Your task to perform on an android device: change the clock display to show seconds Image 0: 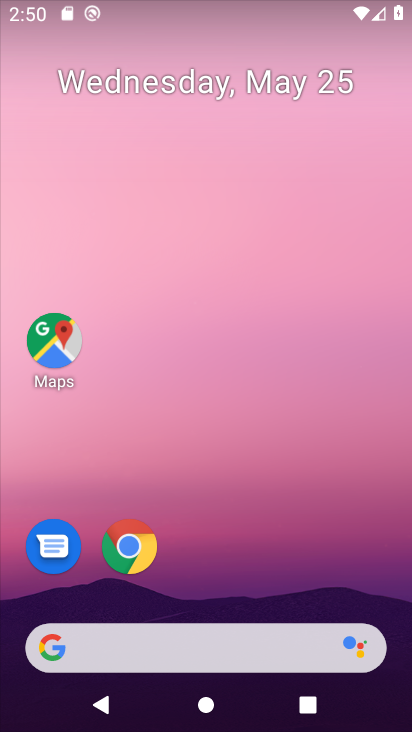
Step 0: drag from (211, 571) to (162, 180)
Your task to perform on an android device: change the clock display to show seconds Image 1: 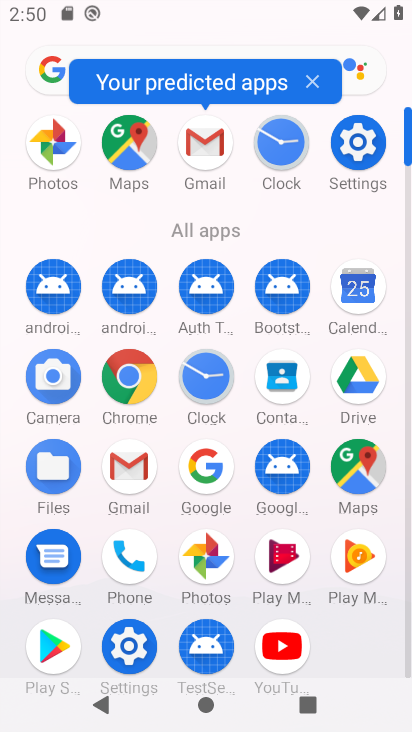
Step 1: click (289, 151)
Your task to perform on an android device: change the clock display to show seconds Image 2: 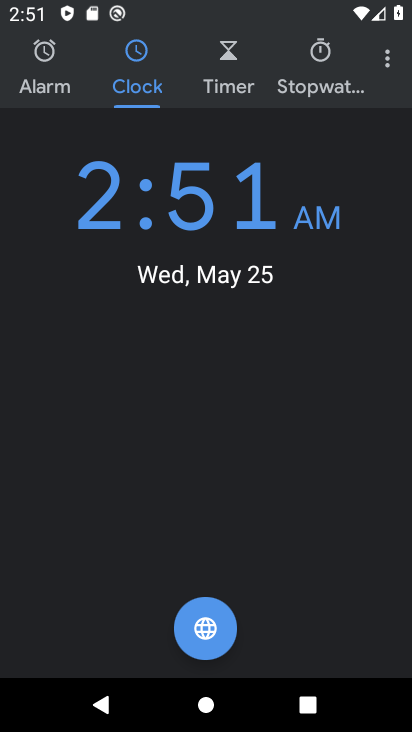
Step 2: click (387, 53)
Your task to perform on an android device: change the clock display to show seconds Image 3: 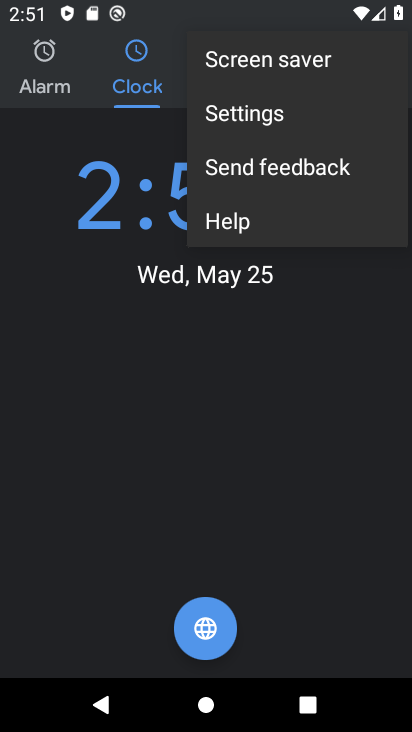
Step 3: click (262, 120)
Your task to perform on an android device: change the clock display to show seconds Image 4: 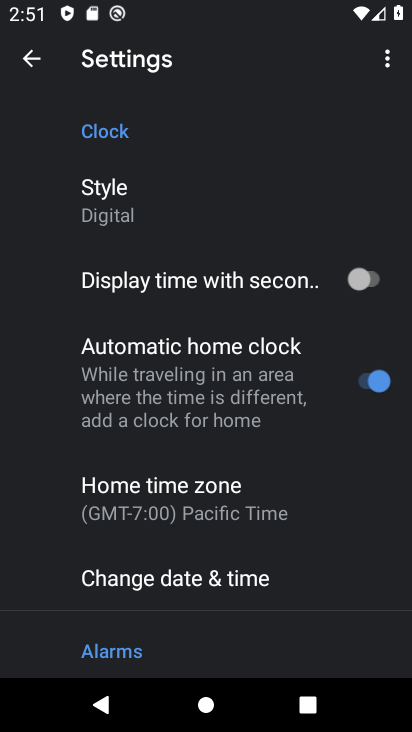
Step 4: click (364, 276)
Your task to perform on an android device: change the clock display to show seconds Image 5: 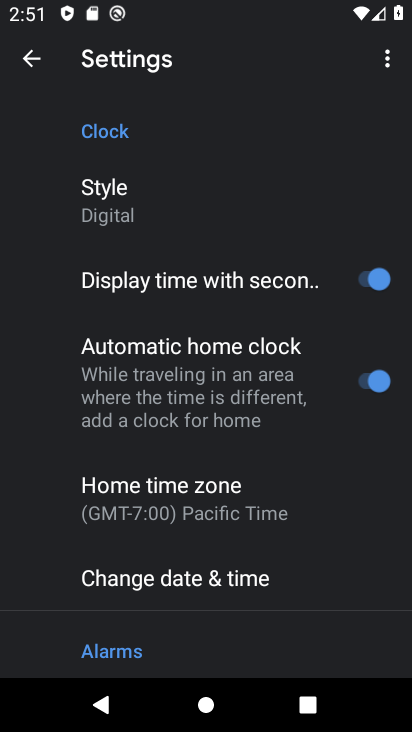
Step 5: task complete